Your task to perform on an android device: open a bookmark in the chrome app Image 0: 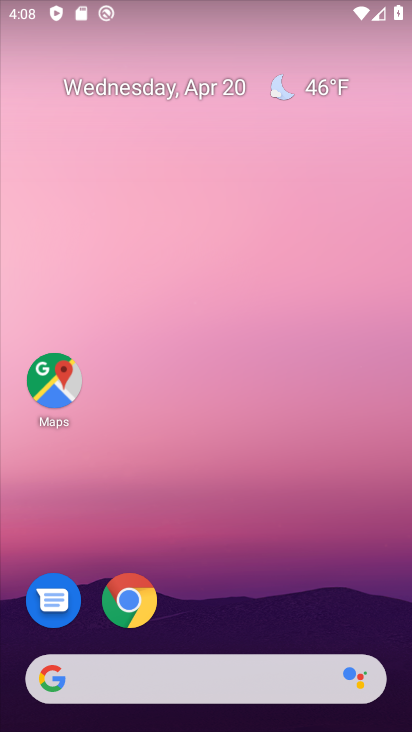
Step 0: press home button
Your task to perform on an android device: open a bookmark in the chrome app Image 1: 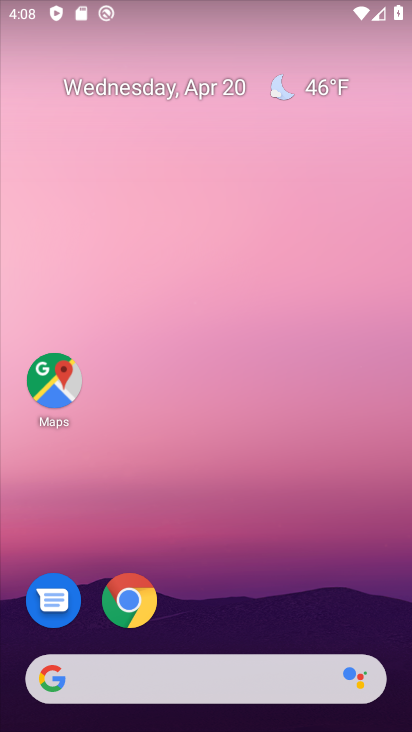
Step 1: click (125, 596)
Your task to perform on an android device: open a bookmark in the chrome app Image 2: 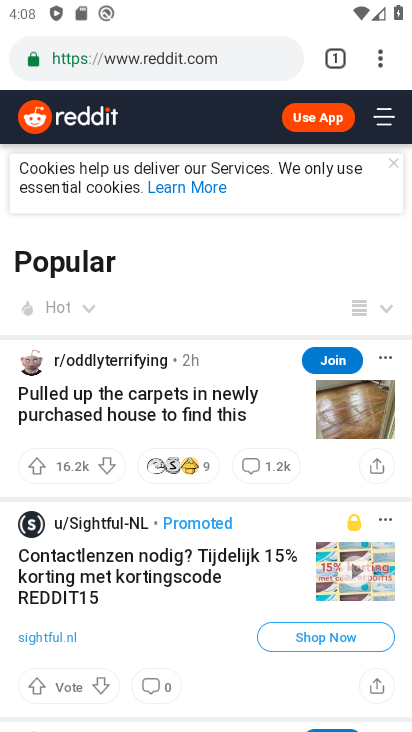
Step 2: click (337, 47)
Your task to perform on an android device: open a bookmark in the chrome app Image 3: 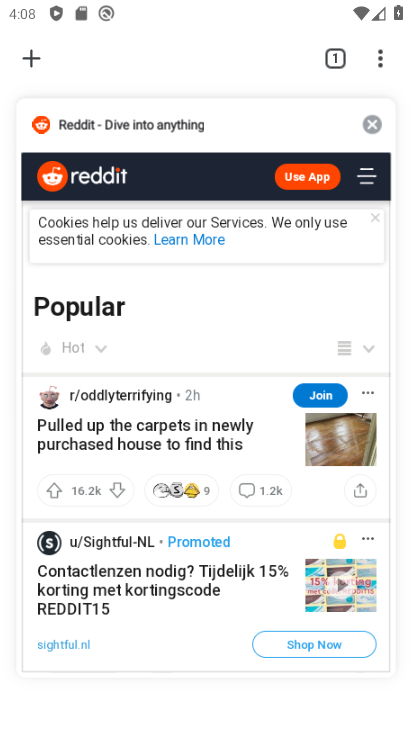
Step 3: click (31, 57)
Your task to perform on an android device: open a bookmark in the chrome app Image 4: 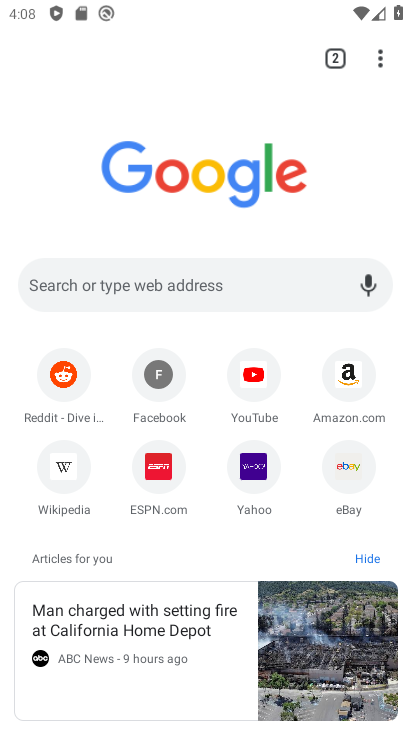
Step 4: click (377, 55)
Your task to perform on an android device: open a bookmark in the chrome app Image 5: 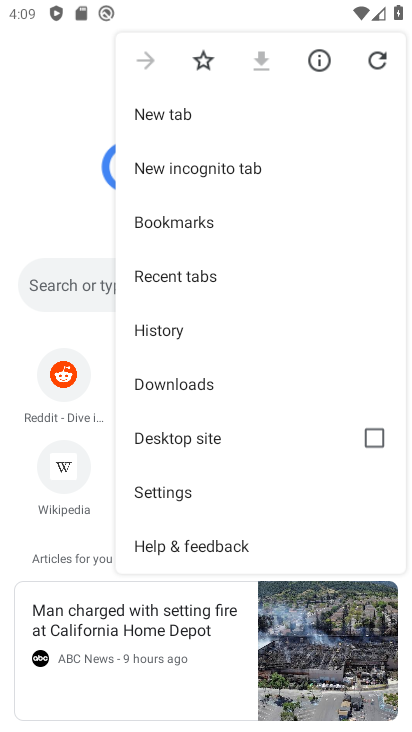
Step 5: click (204, 221)
Your task to perform on an android device: open a bookmark in the chrome app Image 6: 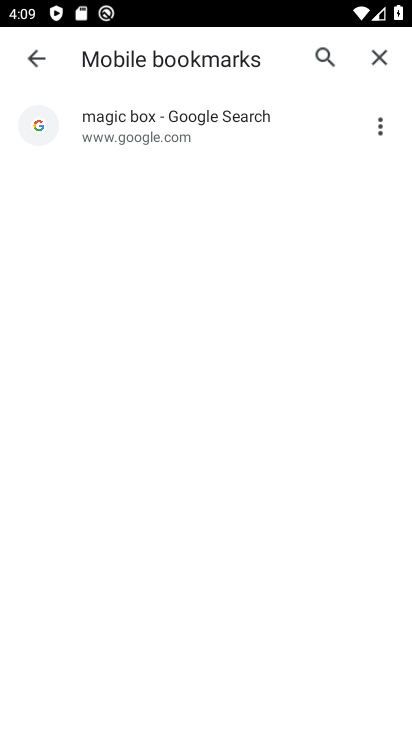
Step 6: click (378, 122)
Your task to perform on an android device: open a bookmark in the chrome app Image 7: 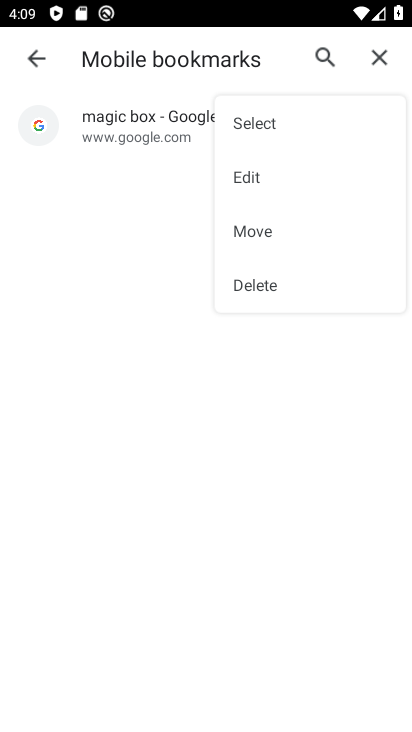
Step 7: click (167, 124)
Your task to perform on an android device: open a bookmark in the chrome app Image 8: 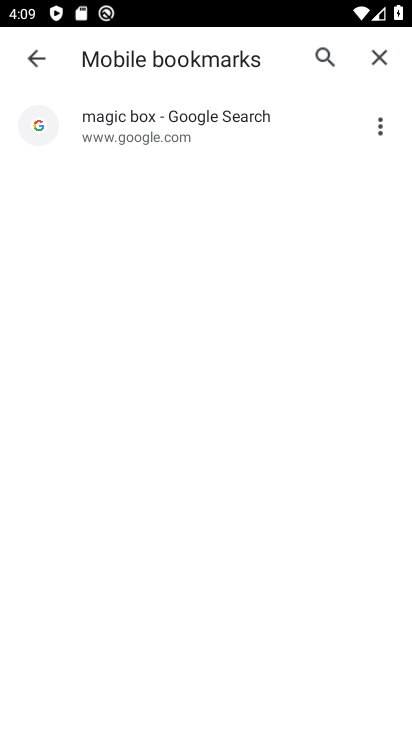
Step 8: click (167, 124)
Your task to perform on an android device: open a bookmark in the chrome app Image 9: 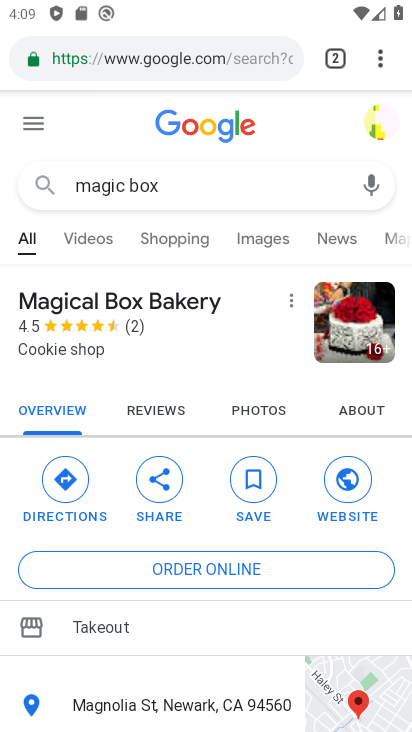
Step 9: task complete